Your task to perform on an android device: read, delete, or share a saved page in the chrome app Image 0: 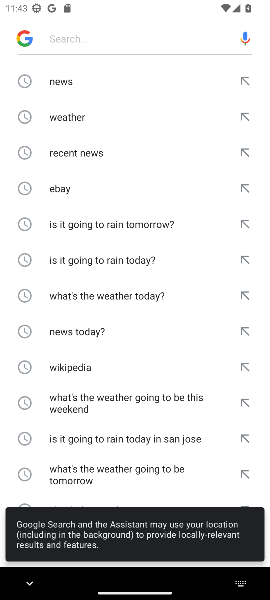
Step 0: press home button
Your task to perform on an android device: read, delete, or share a saved page in the chrome app Image 1: 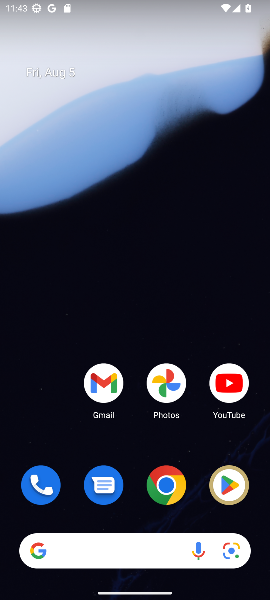
Step 1: click (167, 473)
Your task to perform on an android device: read, delete, or share a saved page in the chrome app Image 2: 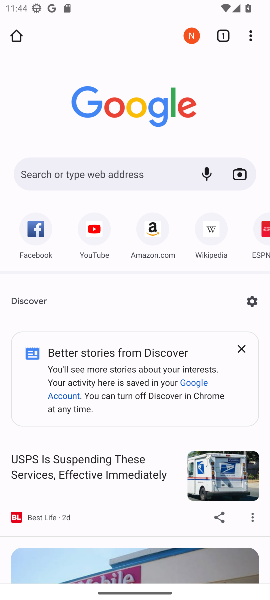
Step 2: click (247, 34)
Your task to perform on an android device: read, delete, or share a saved page in the chrome app Image 3: 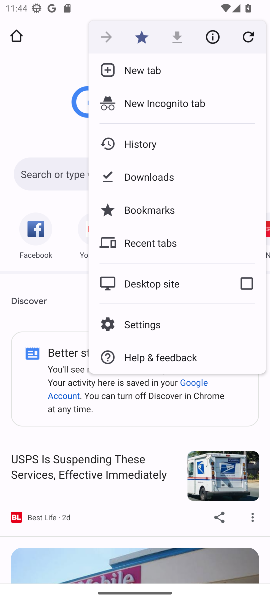
Step 3: click (140, 177)
Your task to perform on an android device: read, delete, or share a saved page in the chrome app Image 4: 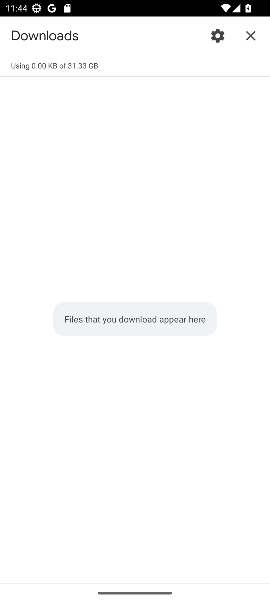
Step 4: task complete